Your task to perform on an android device: Search for Italian restaurants on Maps Image 0: 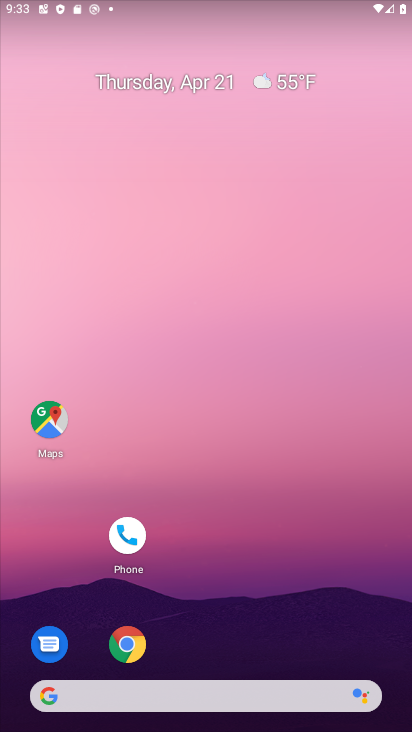
Step 0: drag from (314, 640) to (254, 212)
Your task to perform on an android device: Search for Italian restaurants on Maps Image 1: 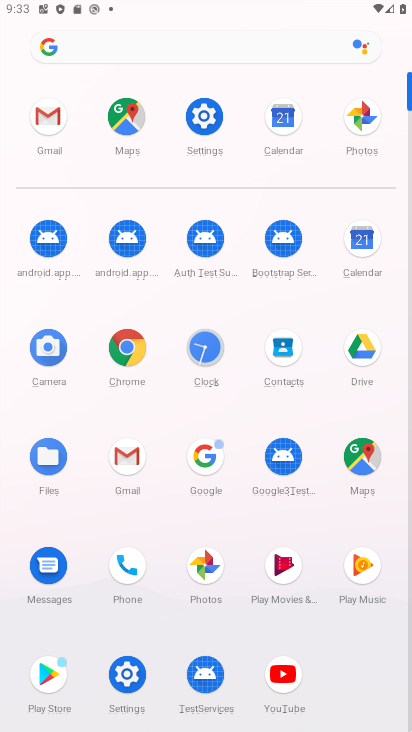
Step 1: click (364, 459)
Your task to perform on an android device: Search for Italian restaurants on Maps Image 2: 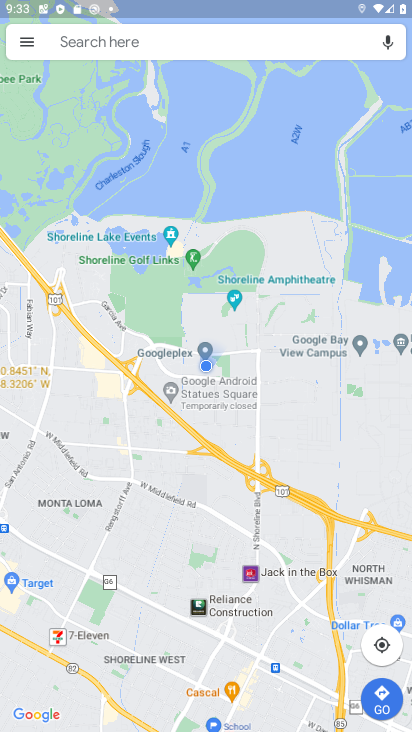
Step 2: click (210, 38)
Your task to perform on an android device: Search for Italian restaurants on Maps Image 3: 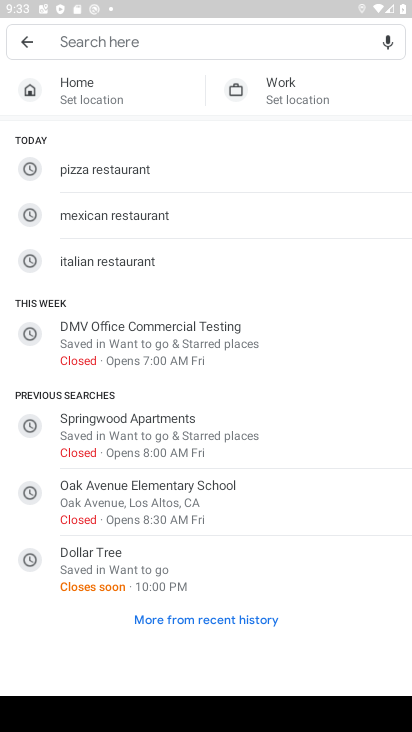
Step 3: type "Italian restaurants "
Your task to perform on an android device: Search for Italian restaurants on Maps Image 4: 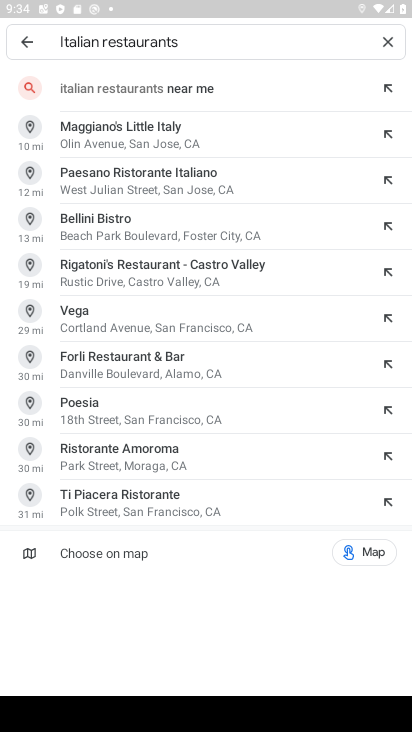
Step 4: press enter
Your task to perform on an android device: Search for Italian restaurants on Maps Image 5: 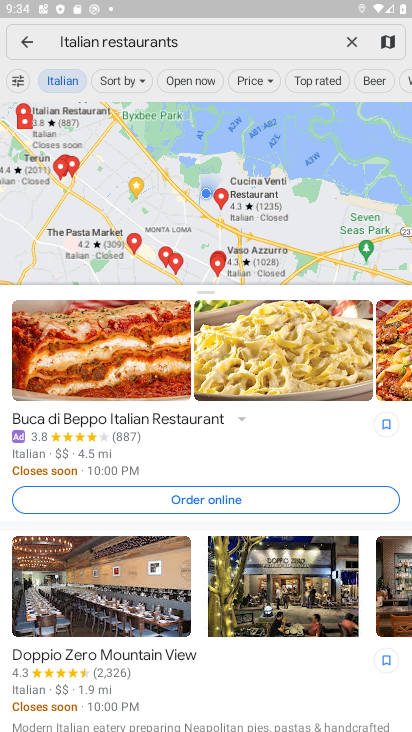
Step 5: task complete